Your task to perform on an android device: open device folders in google photos Image 0: 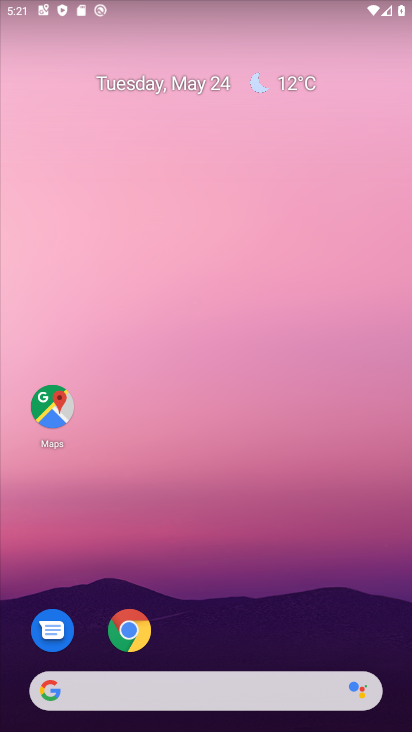
Step 0: click (140, 631)
Your task to perform on an android device: open device folders in google photos Image 1: 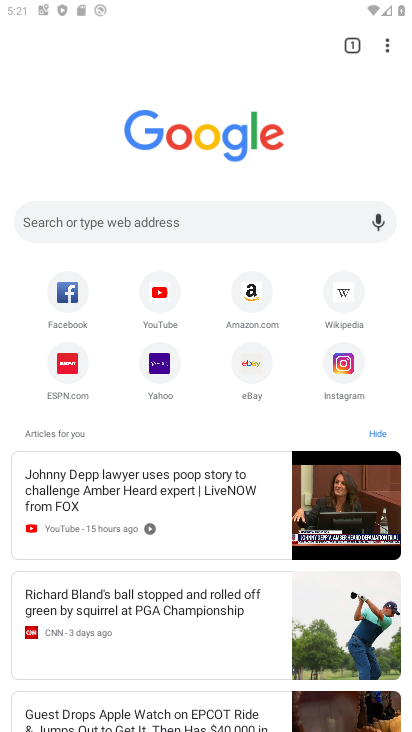
Step 1: press home button
Your task to perform on an android device: open device folders in google photos Image 2: 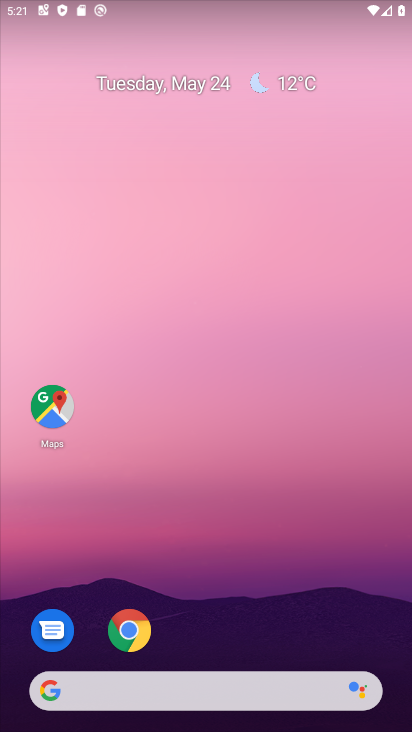
Step 2: drag from (189, 633) to (166, 13)
Your task to perform on an android device: open device folders in google photos Image 3: 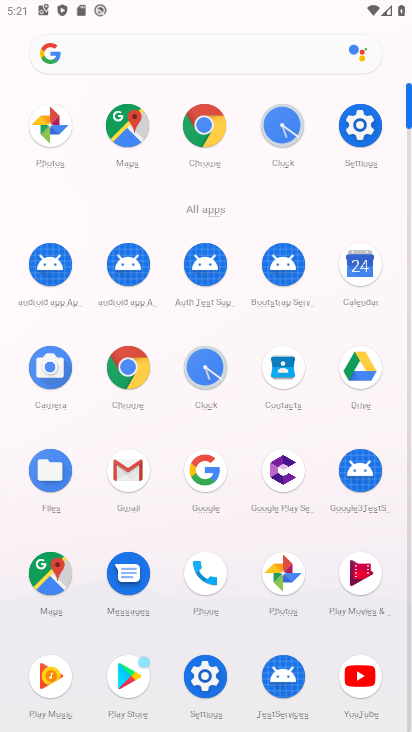
Step 3: click (274, 624)
Your task to perform on an android device: open device folders in google photos Image 4: 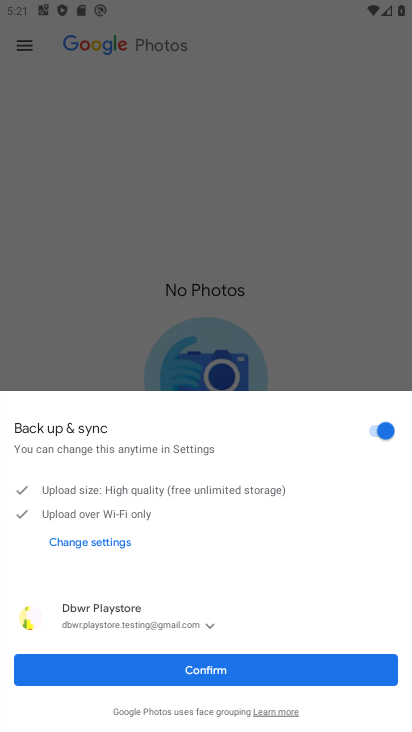
Step 4: click (185, 678)
Your task to perform on an android device: open device folders in google photos Image 5: 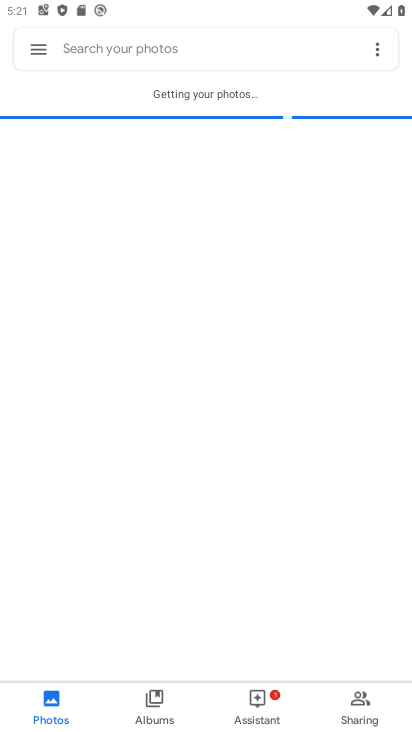
Step 5: click (40, 57)
Your task to perform on an android device: open device folders in google photos Image 6: 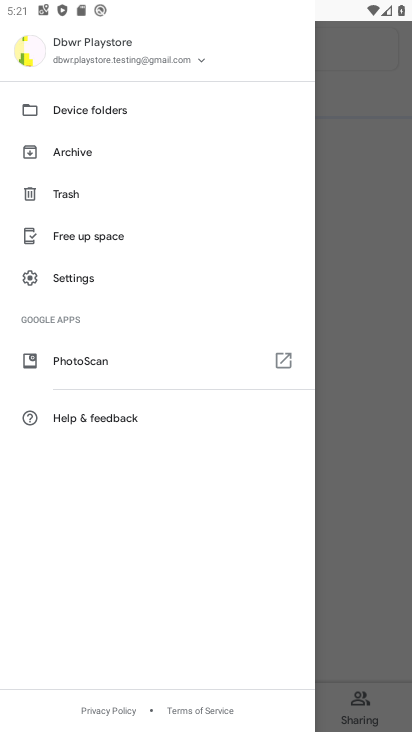
Step 6: click (93, 114)
Your task to perform on an android device: open device folders in google photos Image 7: 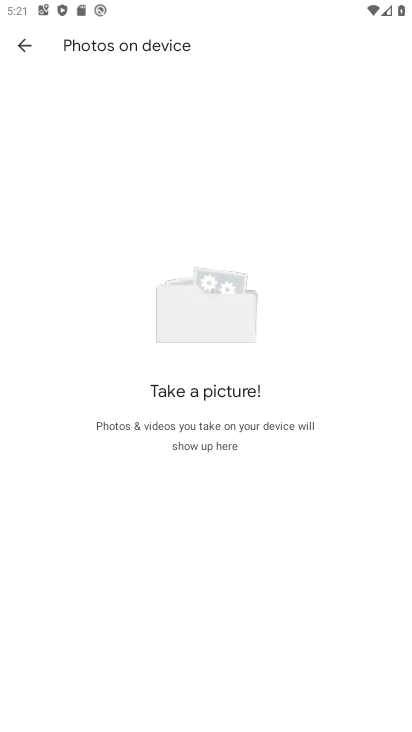
Step 7: task complete